Your task to perform on an android device: Search for the best rated running shoes on Nike.com Image 0: 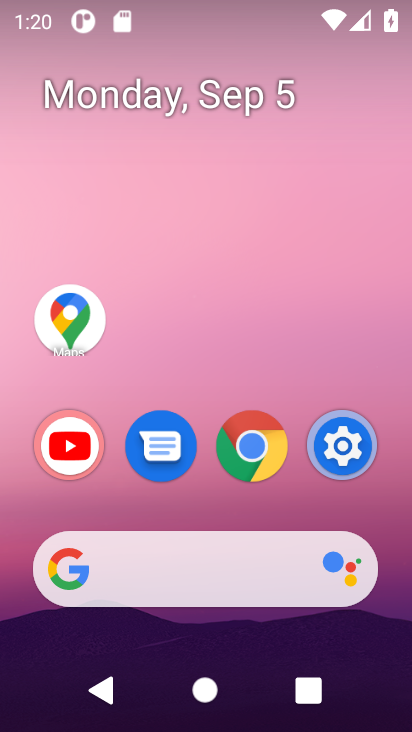
Step 0: click (260, 459)
Your task to perform on an android device: Search for the best rated running shoes on Nike.com Image 1: 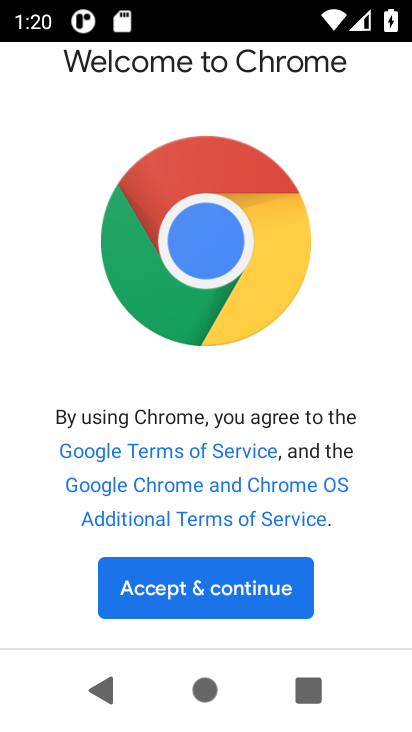
Step 1: click (266, 589)
Your task to perform on an android device: Search for the best rated running shoes on Nike.com Image 2: 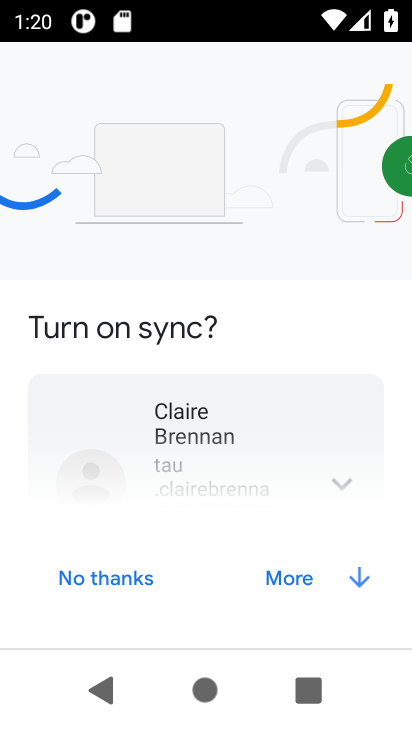
Step 2: click (305, 579)
Your task to perform on an android device: Search for the best rated running shoes on Nike.com Image 3: 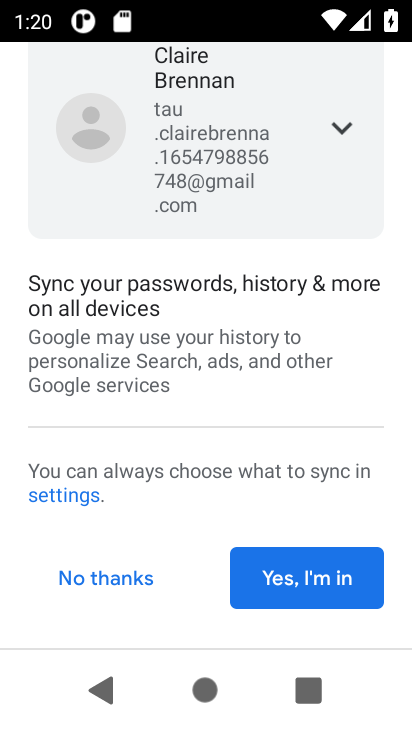
Step 3: click (305, 579)
Your task to perform on an android device: Search for the best rated running shoes on Nike.com Image 4: 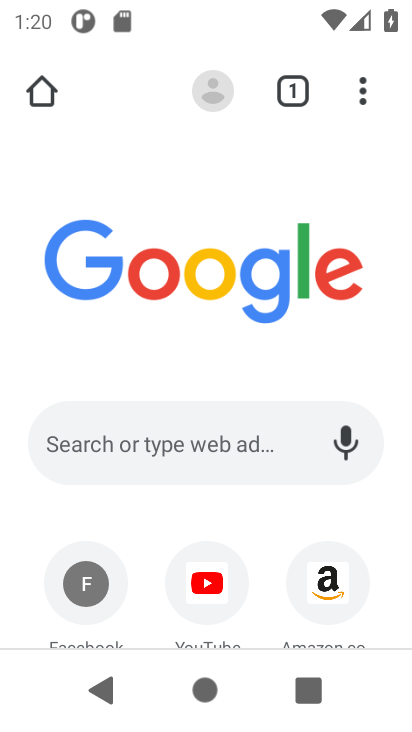
Step 4: click (185, 441)
Your task to perform on an android device: Search for the best rated running shoes on Nike.com Image 5: 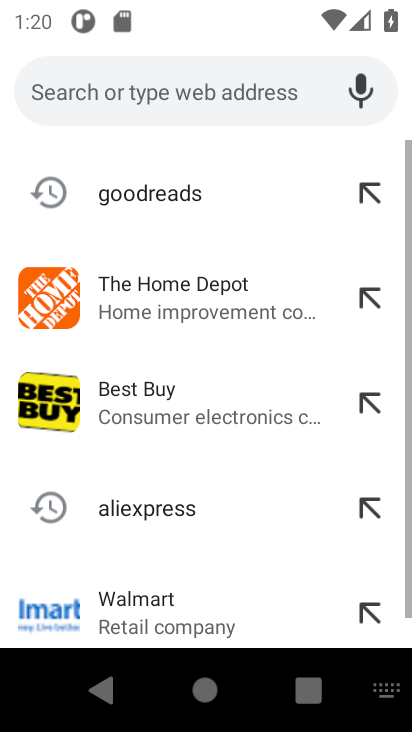
Step 5: type "nike.com"
Your task to perform on an android device: Search for the best rated running shoes on Nike.com Image 6: 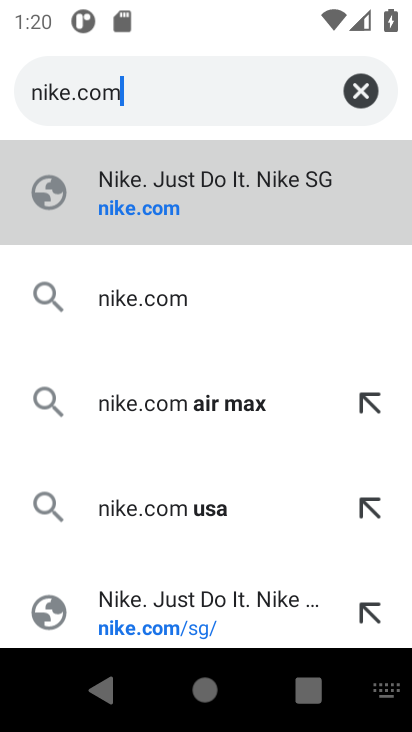
Step 6: click (233, 215)
Your task to perform on an android device: Search for the best rated running shoes on Nike.com Image 7: 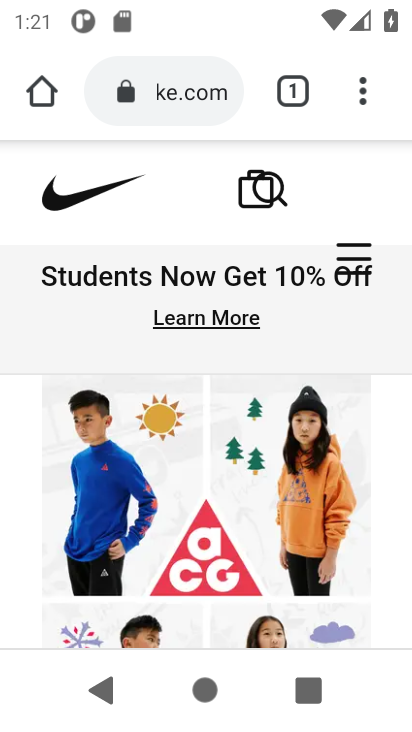
Step 7: click (274, 195)
Your task to perform on an android device: Search for the best rated running shoes on Nike.com Image 8: 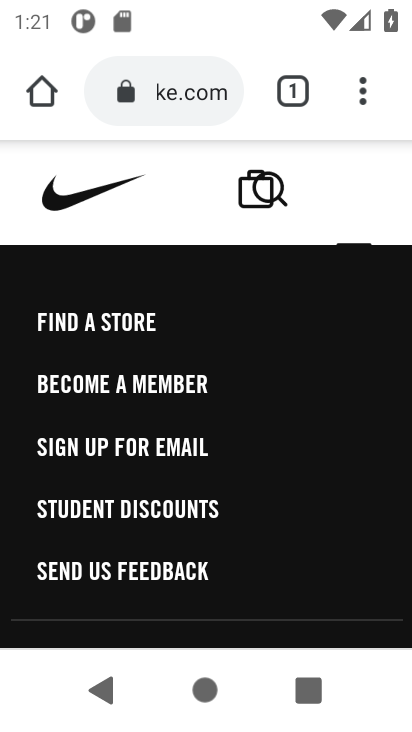
Step 8: click (282, 189)
Your task to perform on an android device: Search for the best rated running shoes on Nike.com Image 9: 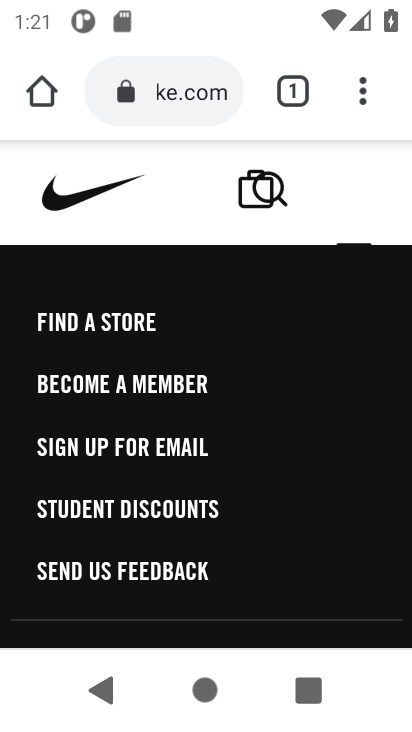
Step 9: click (296, 195)
Your task to perform on an android device: Search for the best rated running shoes on Nike.com Image 10: 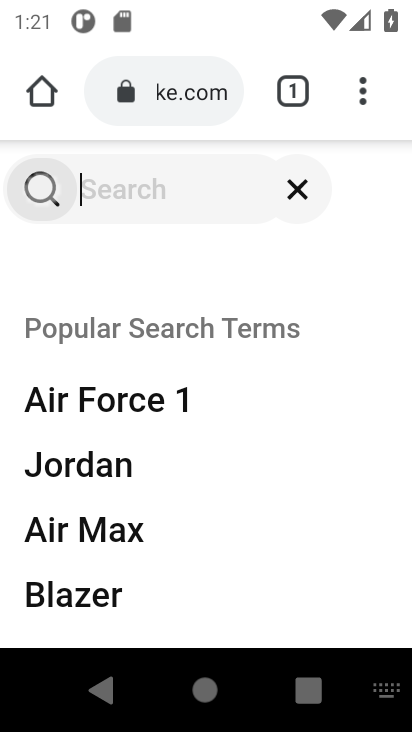
Step 10: click (152, 190)
Your task to perform on an android device: Search for the best rated running shoes on Nike.com Image 11: 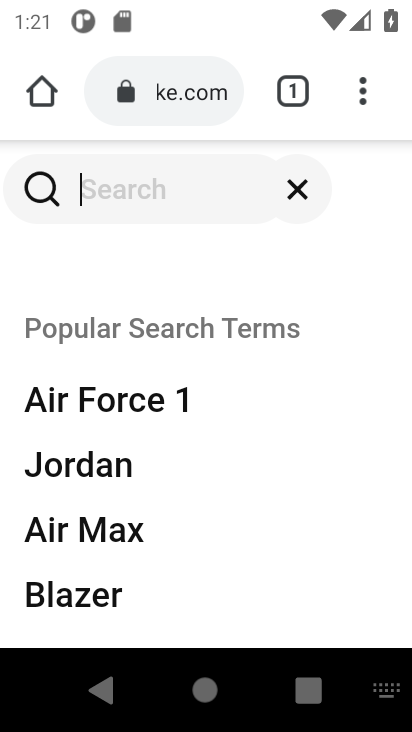
Step 11: type "best rated running shoes"
Your task to perform on an android device: Search for the best rated running shoes on Nike.com Image 12: 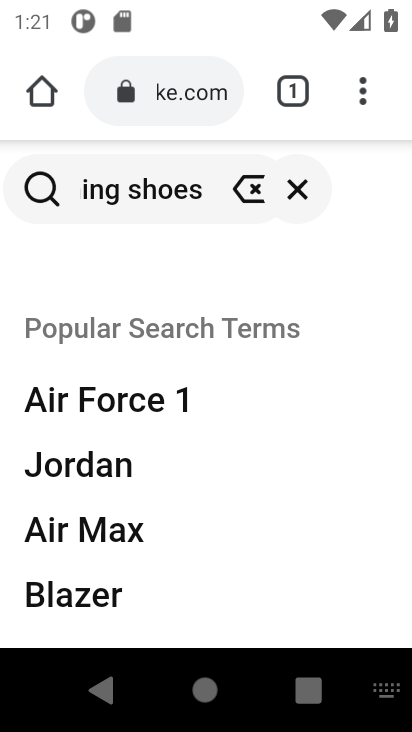
Step 12: click (40, 197)
Your task to perform on an android device: Search for the best rated running shoes on Nike.com Image 13: 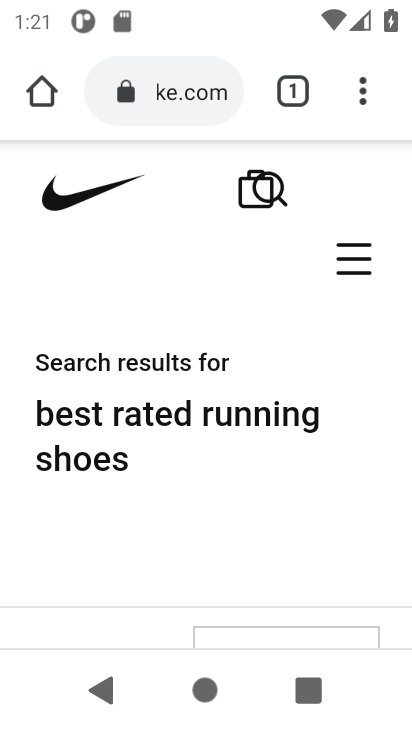
Step 13: task complete